Your task to perform on an android device: open app "Microsoft Authenticator" (install if not already installed) and enter user name: "Cornell@yahoo.com" and password: "bothersome" Image 0: 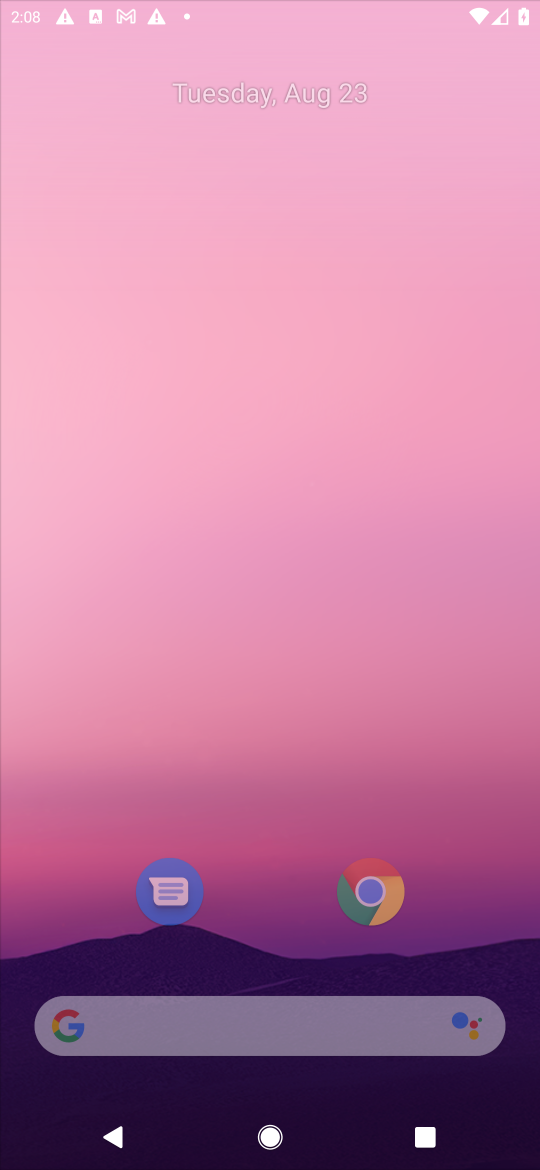
Step 0: press home button
Your task to perform on an android device: open app "Microsoft Authenticator" (install if not already installed) and enter user name: "Cornell@yahoo.com" and password: "bothersome" Image 1: 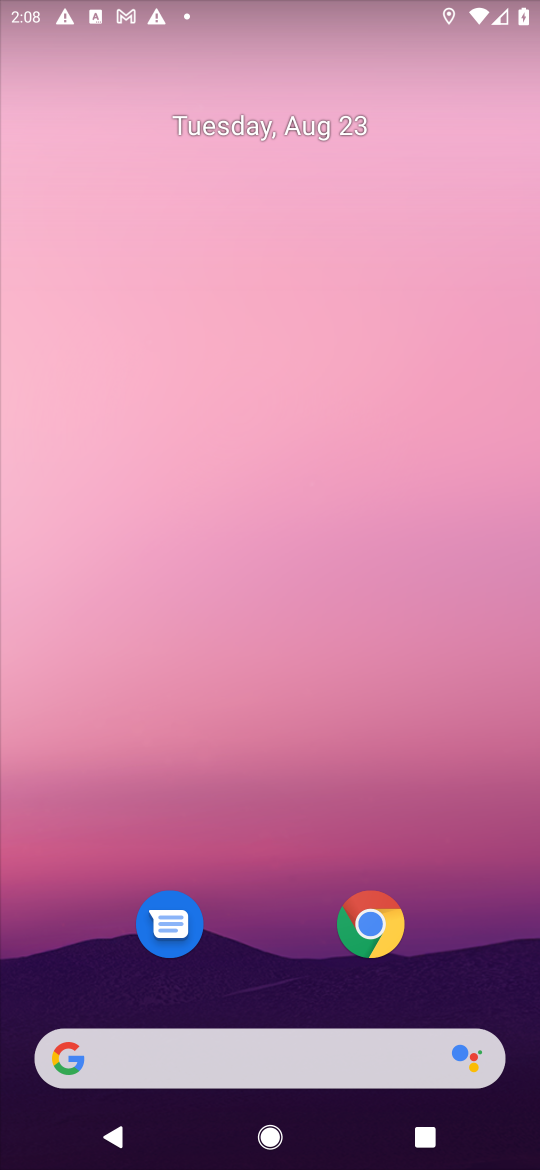
Step 1: drag from (475, 953) to (494, 105)
Your task to perform on an android device: open app "Microsoft Authenticator" (install if not already installed) and enter user name: "Cornell@yahoo.com" and password: "bothersome" Image 2: 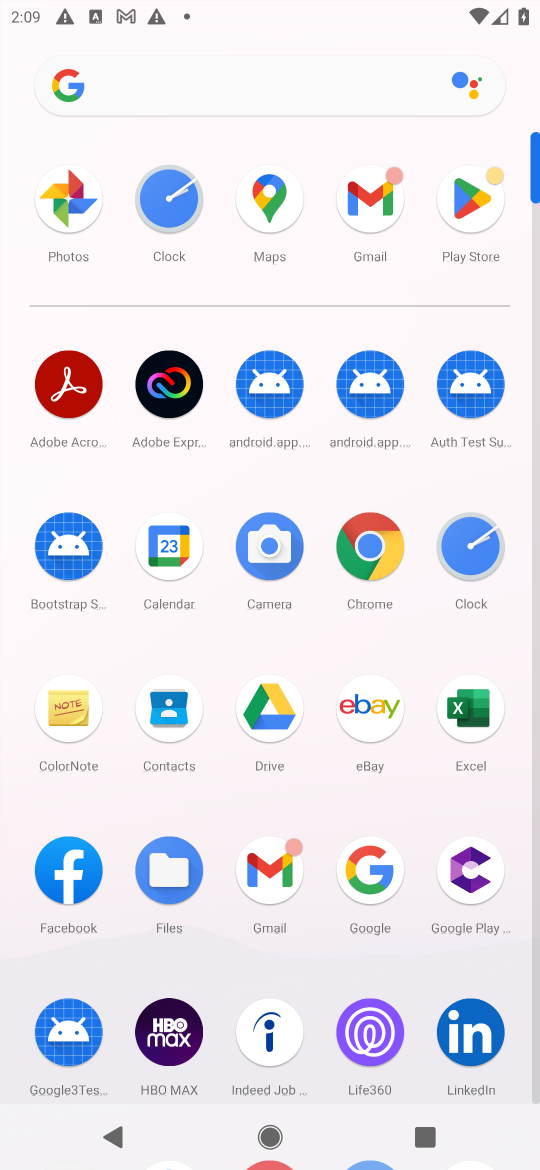
Step 2: click (469, 196)
Your task to perform on an android device: open app "Microsoft Authenticator" (install if not already installed) and enter user name: "Cornell@yahoo.com" and password: "bothersome" Image 3: 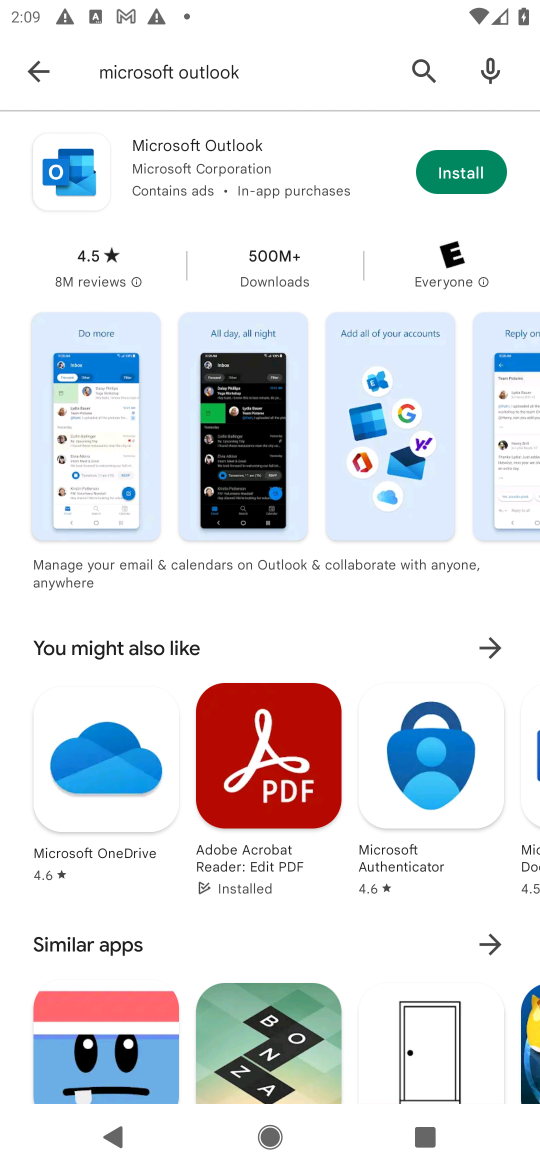
Step 3: press back button
Your task to perform on an android device: open app "Microsoft Authenticator" (install if not already installed) and enter user name: "Cornell@yahoo.com" and password: "bothersome" Image 4: 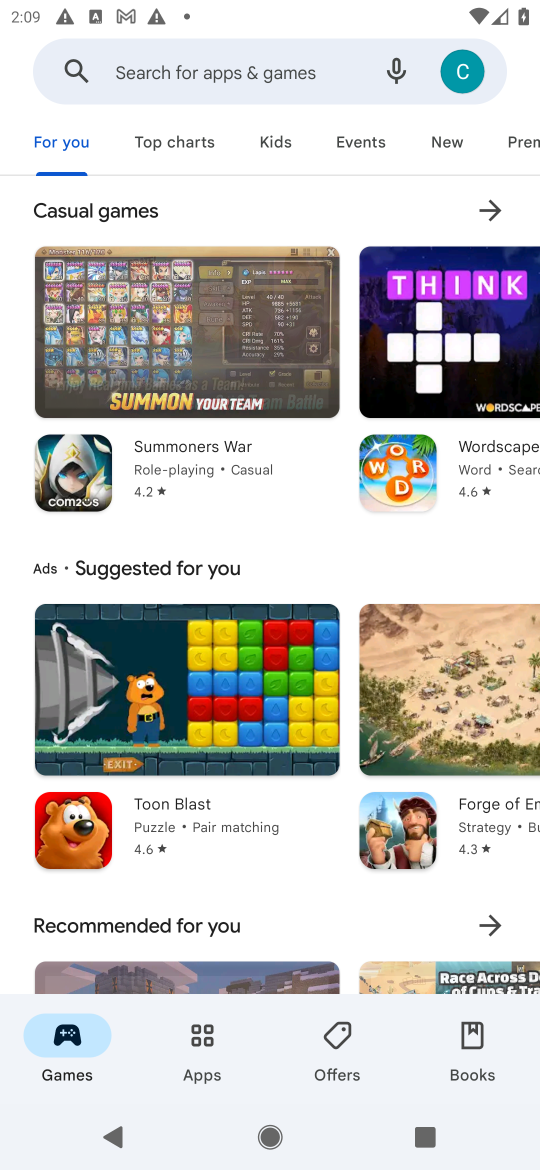
Step 4: click (230, 73)
Your task to perform on an android device: open app "Microsoft Authenticator" (install if not already installed) and enter user name: "Cornell@yahoo.com" and password: "bothersome" Image 5: 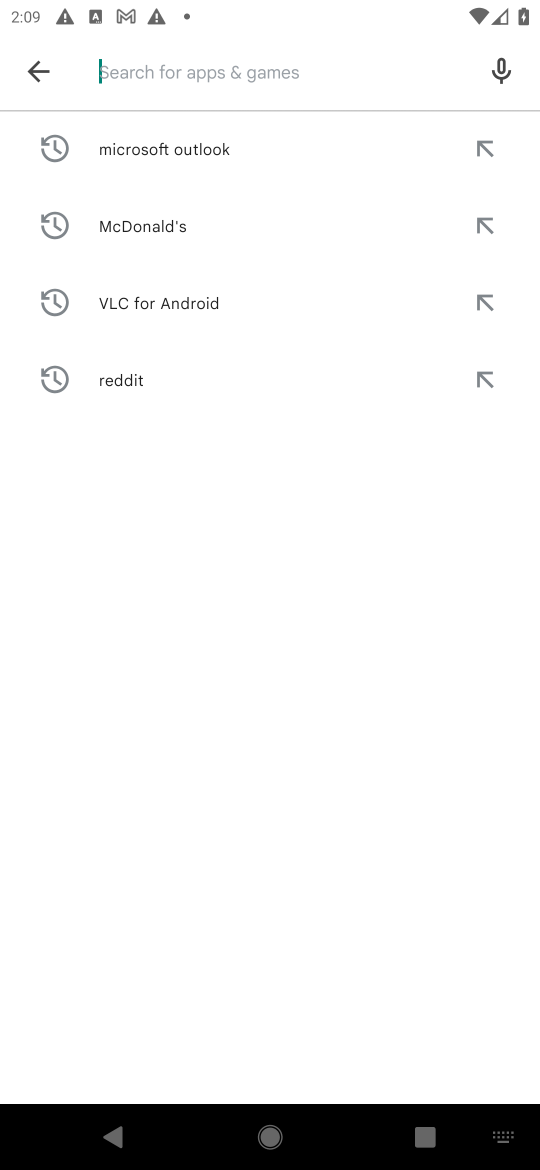
Step 5: type "Microsoft Authenticator"
Your task to perform on an android device: open app "Microsoft Authenticator" (install if not already installed) and enter user name: "Cornell@yahoo.com" and password: "bothersome" Image 6: 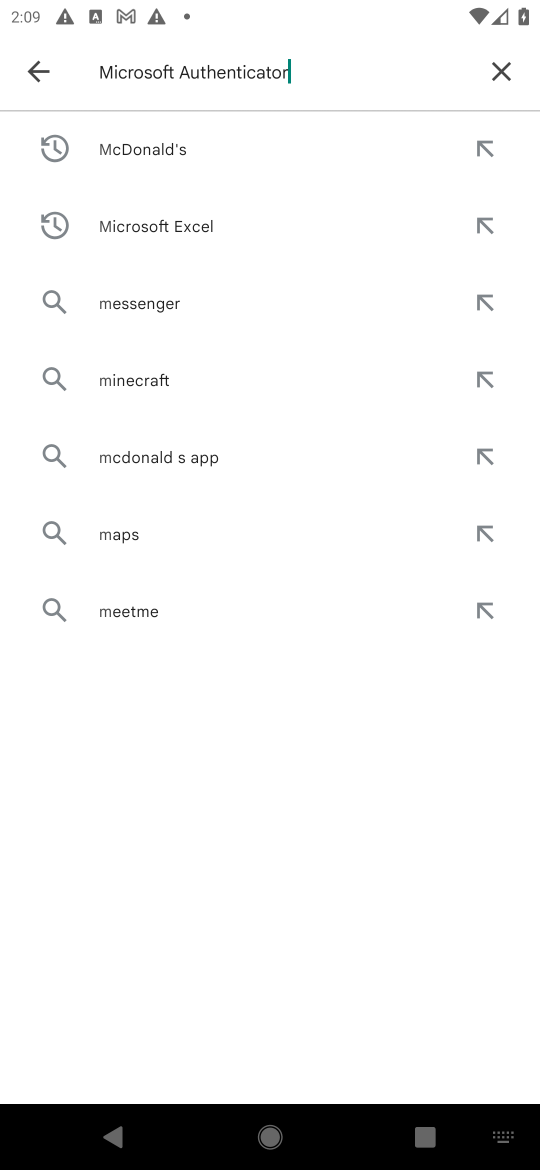
Step 6: press enter
Your task to perform on an android device: open app "Microsoft Authenticator" (install if not already installed) and enter user name: "Cornell@yahoo.com" and password: "bothersome" Image 7: 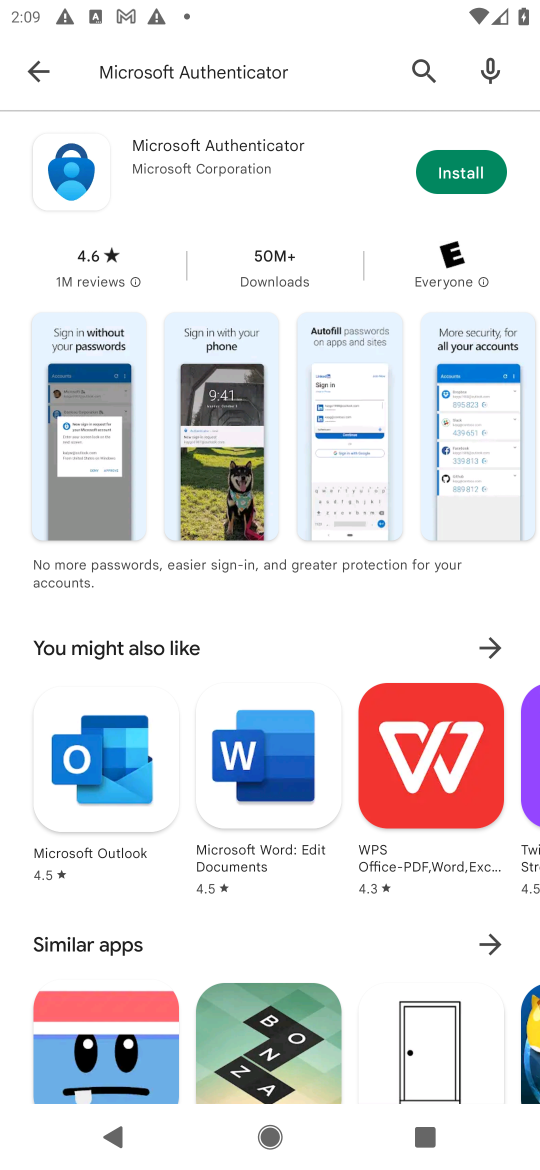
Step 7: click (465, 166)
Your task to perform on an android device: open app "Microsoft Authenticator" (install if not already installed) and enter user name: "Cornell@yahoo.com" and password: "bothersome" Image 8: 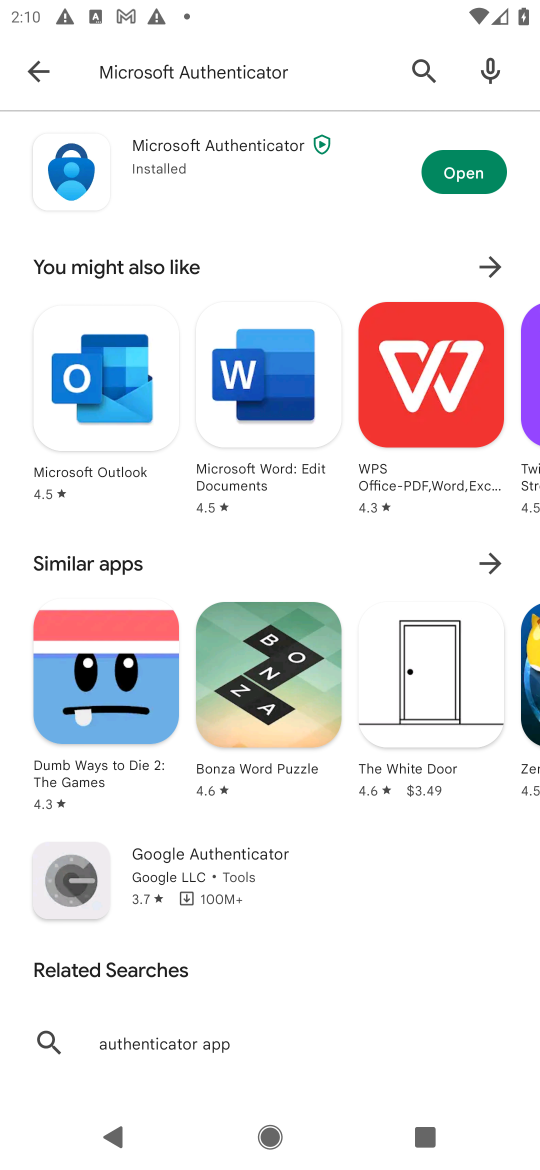
Step 8: click (473, 181)
Your task to perform on an android device: open app "Microsoft Authenticator" (install if not already installed) and enter user name: "Cornell@yahoo.com" and password: "bothersome" Image 9: 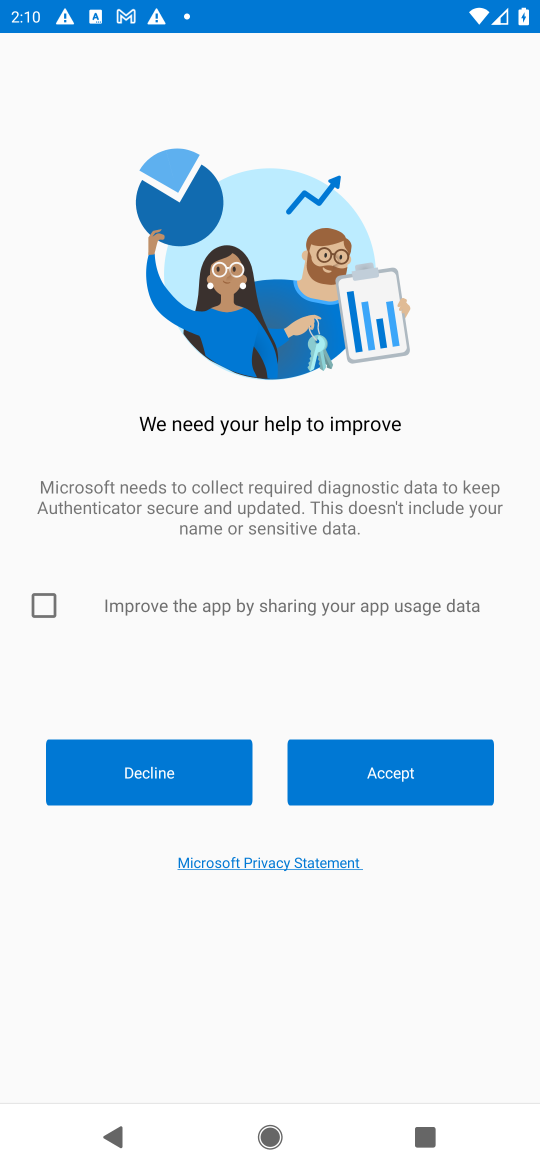
Step 9: click (43, 604)
Your task to perform on an android device: open app "Microsoft Authenticator" (install if not already installed) and enter user name: "Cornell@yahoo.com" and password: "bothersome" Image 10: 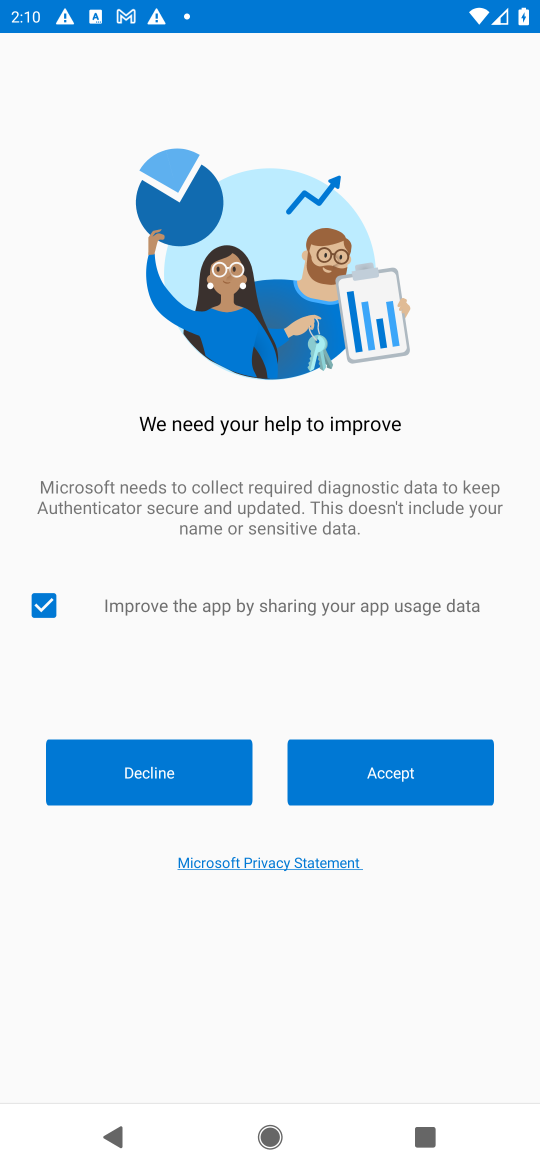
Step 10: click (418, 764)
Your task to perform on an android device: open app "Microsoft Authenticator" (install if not already installed) and enter user name: "Cornell@yahoo.com" and password: "bothersome" Image 11: 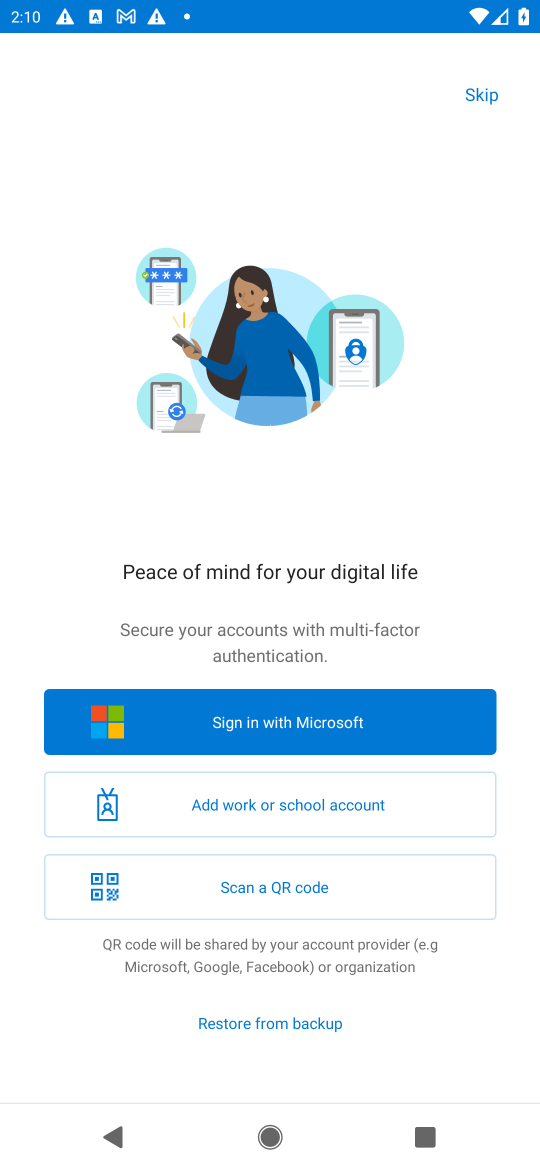
Step 11: click (347, 719)
Your task to perform on an android device: open app "Microsoft Authenticator" (install if not already installed) and enter user name: "Cornell@yahoo.com" and password: "bothersome" Image 12: 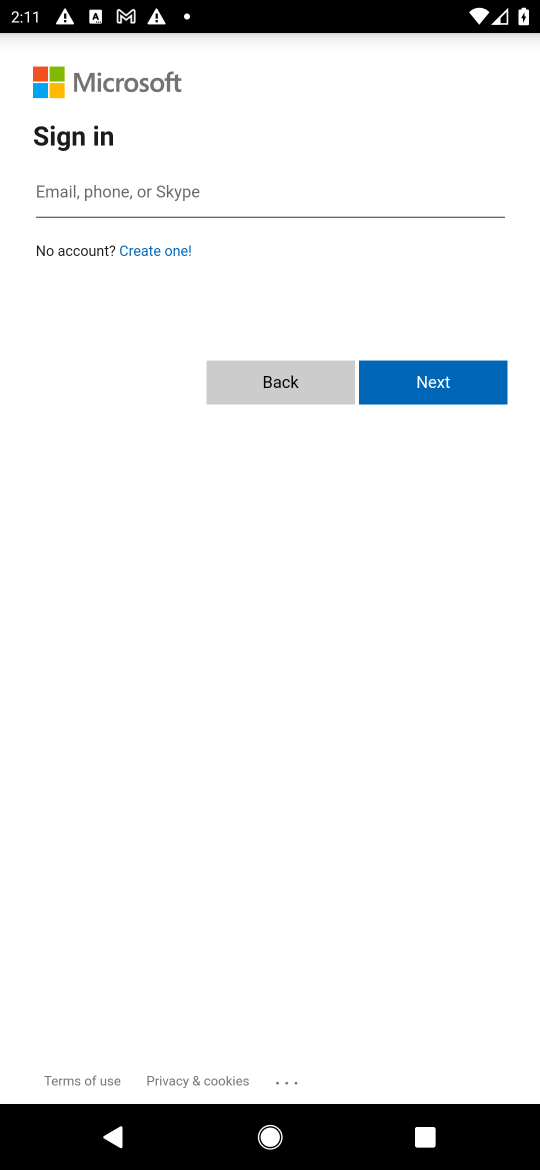
Step 12: click (205, 171)
Your task to perform on an android device: open app "Microsoft Authenticator" (install if not already installed) and enter user name: "Cornell@yahoo.com" and password: "bothersome" Image 13: 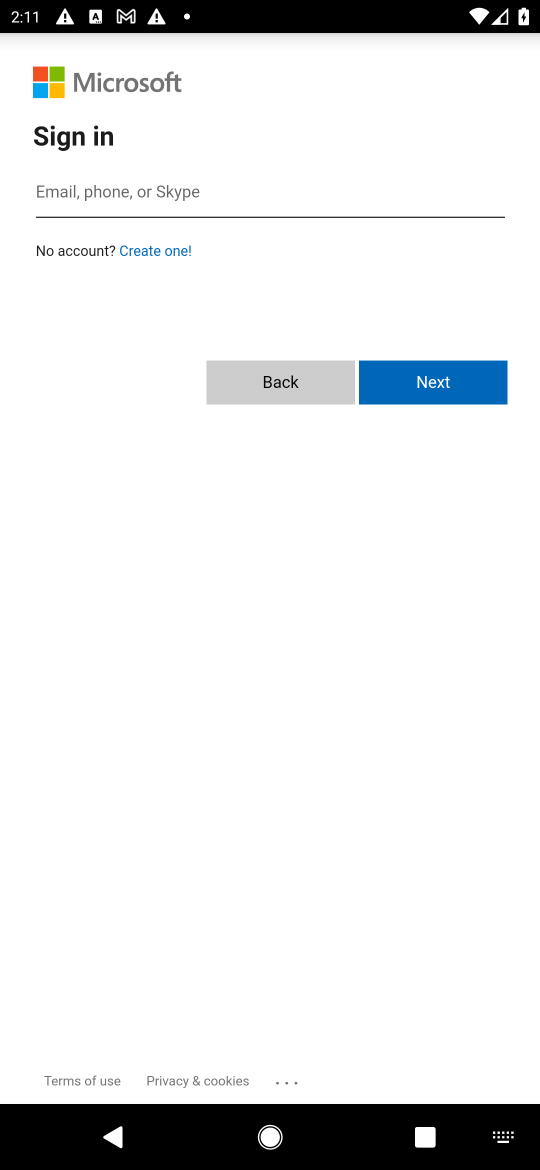
Step 13: press enter
Your task to perform on an android device: open app "Microsoft Authenticator" (install if not already installed) and enter user name: "Cornell@yahoo.com" and password: "bothersome" Image 14: 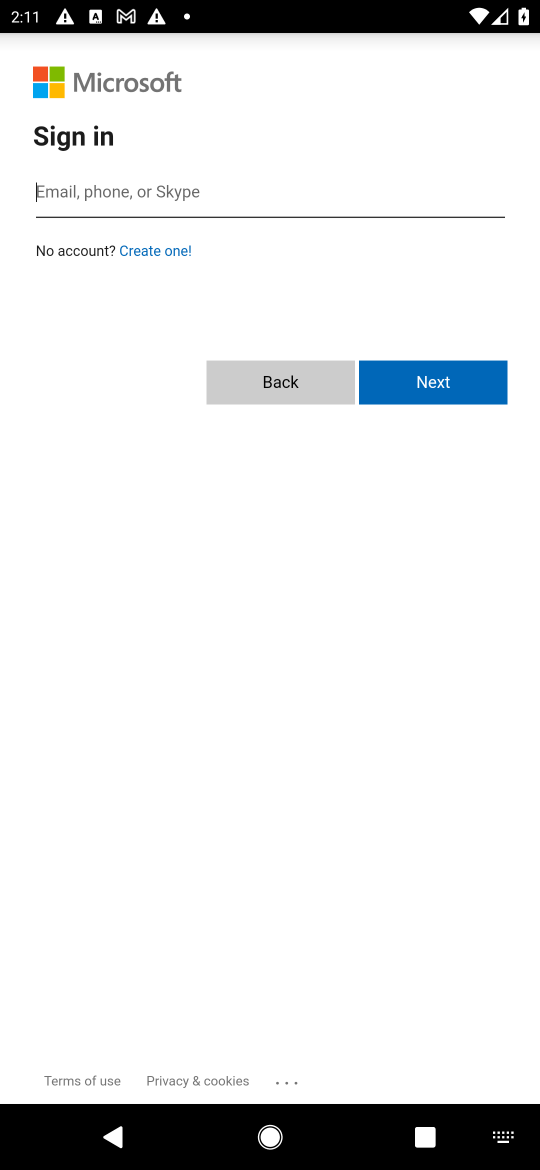
Step 14: type "Cornell@yahoo.com"
Your task to perform on an android device: open app "Microsoft Authenticator" (install if not already installed) and enter user name: "Cornell@yahoo.com" and password: "bothersome" Image 15: 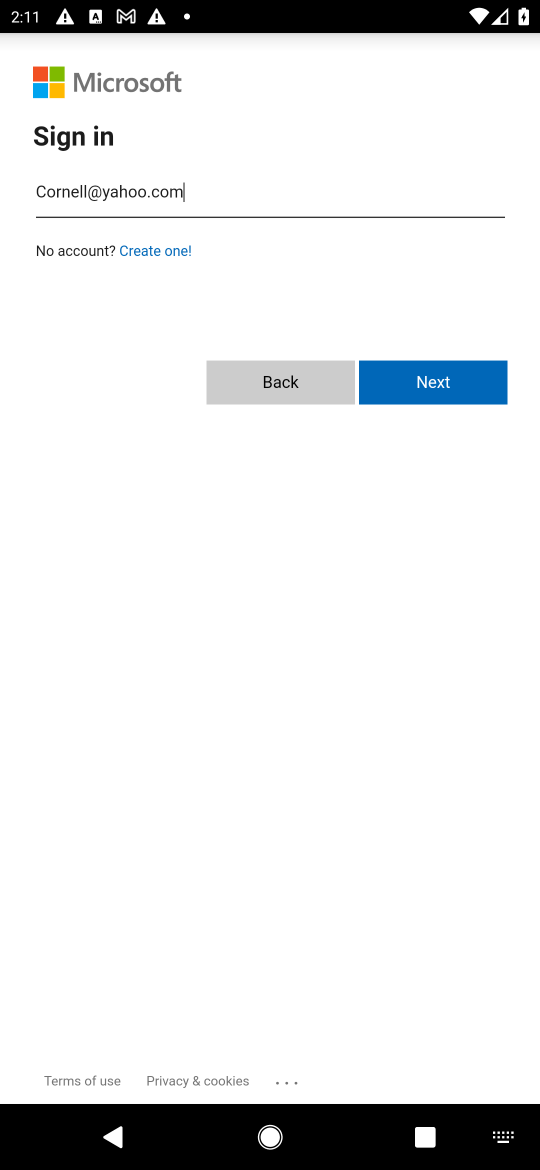
Step 15: click (453, 375)
Your task to perform on an android device: open app "Microsoft Authenticator" (install if not already installed) and enter user name: "Cornell@yahoo.com" and password: "bothersome" Image 16: 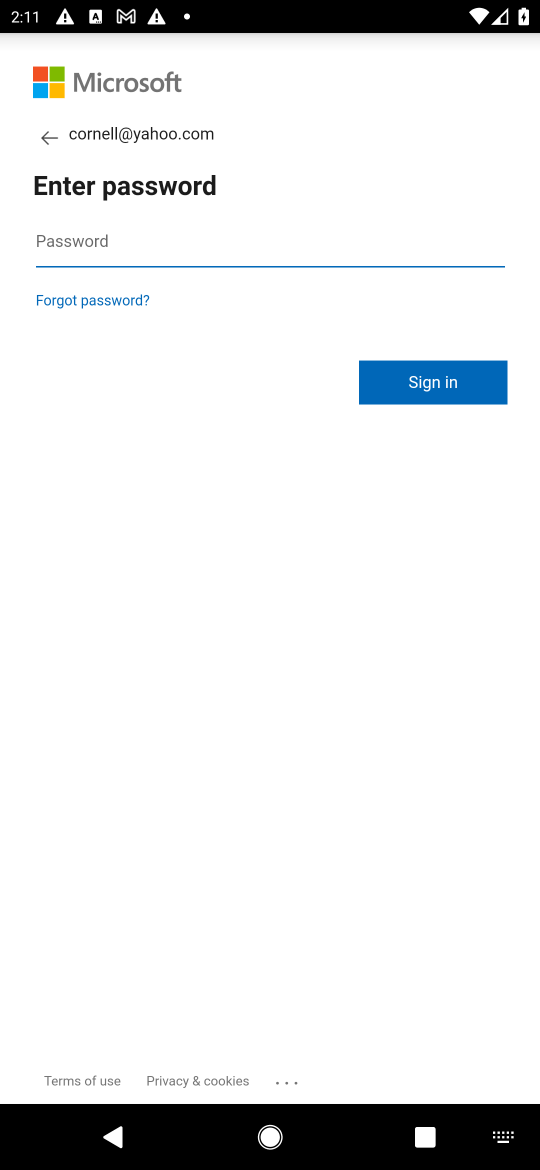
Step 16: click (144, 239)
Your task to perform on an android device: open app "Microsoft Authenticator" (install if not already installed) and enter user name: "Cornell@yahoo.com" and password: "bothersome" Image 17: 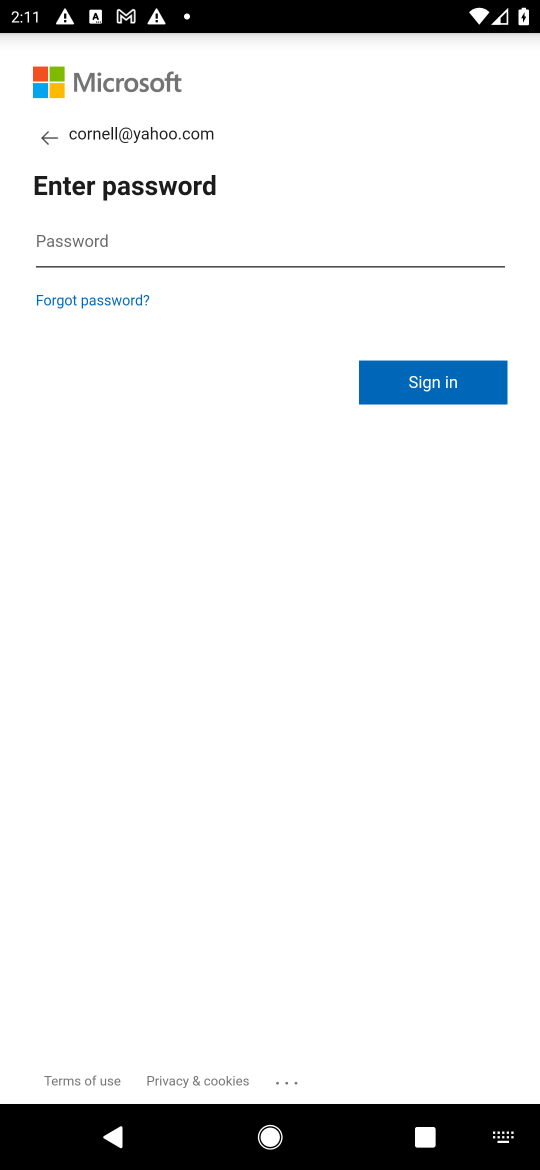
Step 17: type "bothersome"
Your task to perform on an android device: open app "Microsoft Authenticator" (install if not already installed) and enter user name: "Cornell@yahoo.com" and password: "bothersome" Image 18: 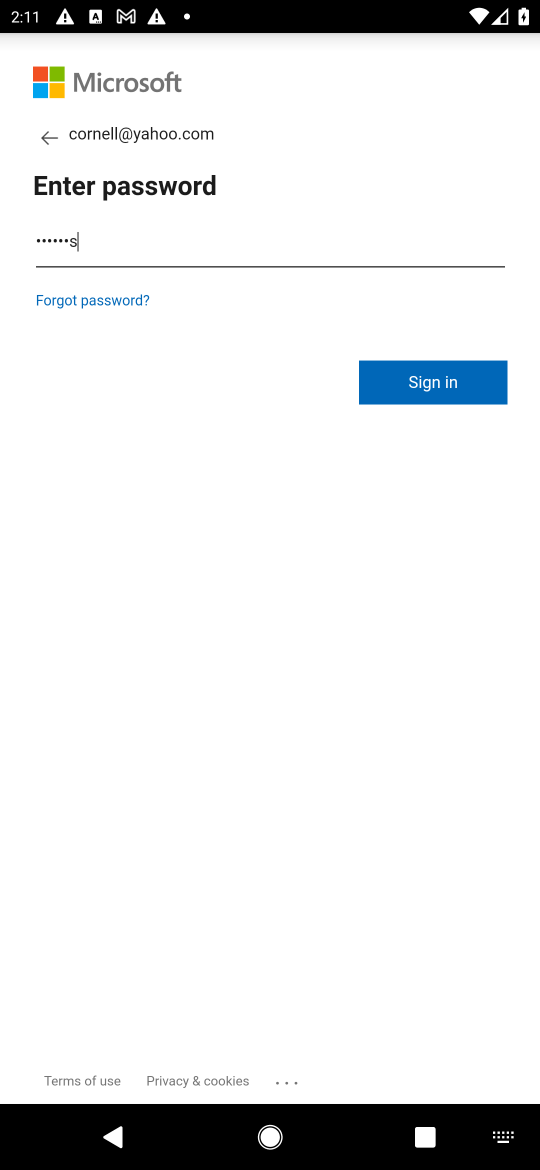
Step 18: press enter
Your task to perform on an android device: open app "Microsoft Authenticator" (install if not already installed) and enter user name: "Cornell@yahoo.com" and password: "bothersome" Image 19: 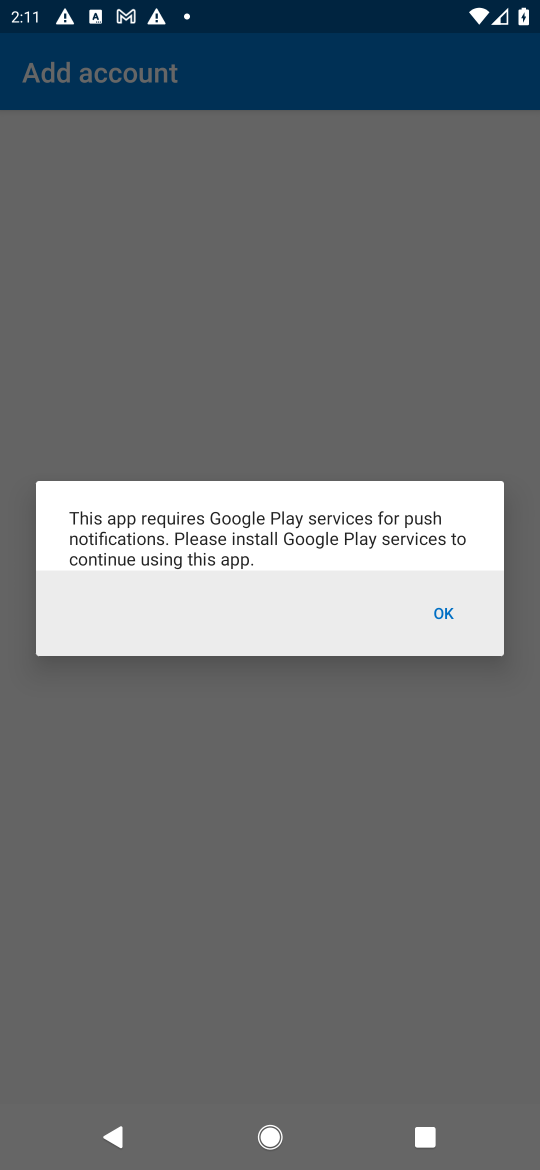
Step 19: task complete